Your task to perform on an android device: Open calendar and show me the first week of next month Image 0: 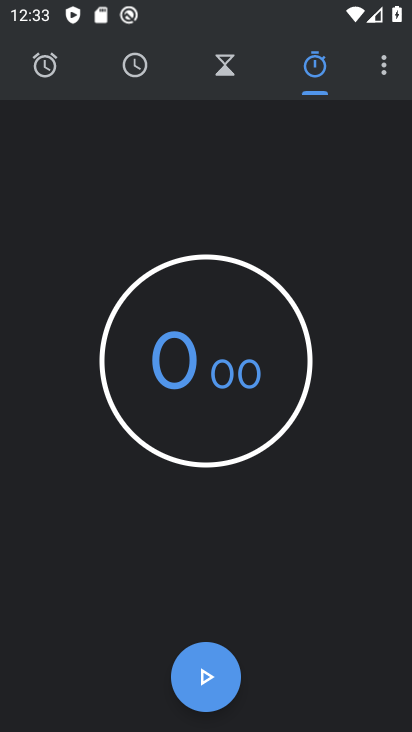
Step 0: press home button
Your task to perform on an android device: Open calendar and show me the first week of next month Image 1: 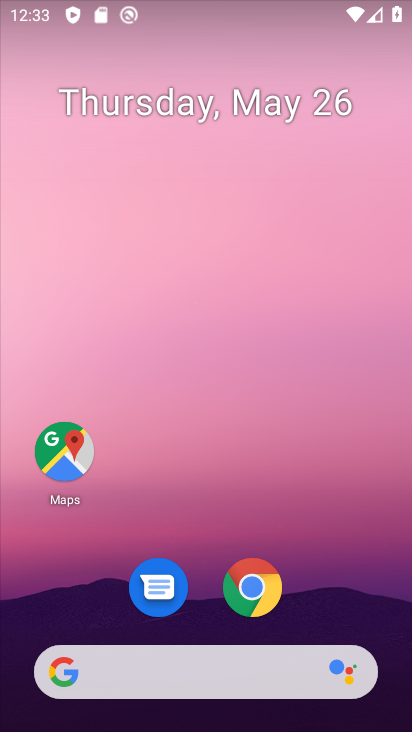
Step 1: drag from (377, 626) to (343, 237)
Your task to perform on an android device: Open calendar and show me the first week of next month Image 2: 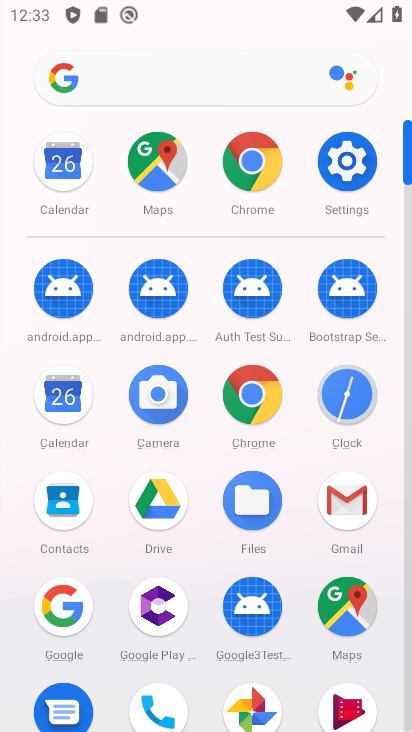
Step 2: click (71, 418)
Your task to perform on an android device: Open calendar and show me the first week of next month Image 3: 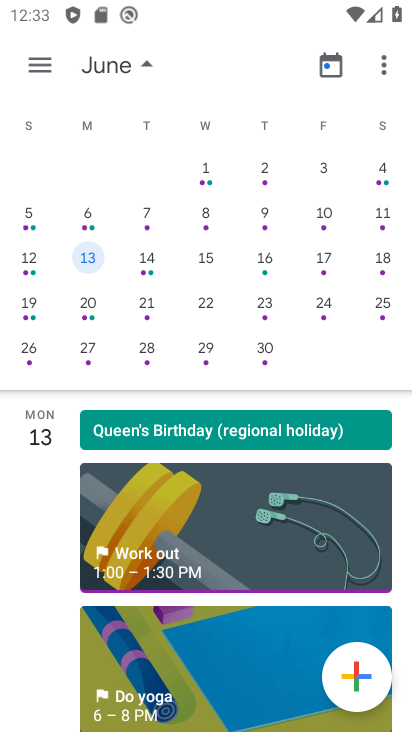
Step 3: click (209, 173)
Your task to perform on an android device: Open calendar and show me the first week of next month Image 4: 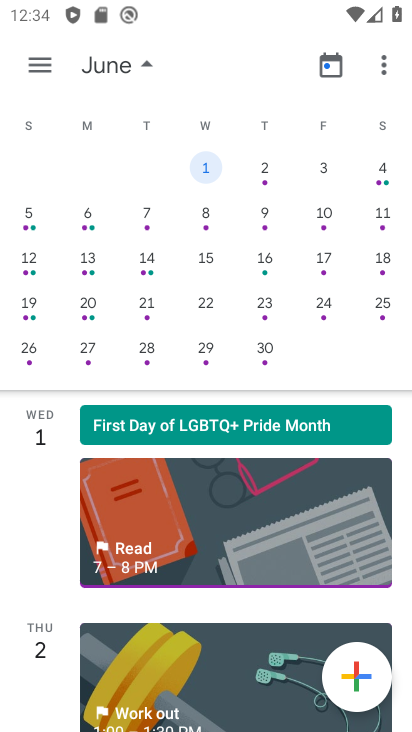
Step 4: task complete